Your task to perform on an android device: check google app version Image 0: 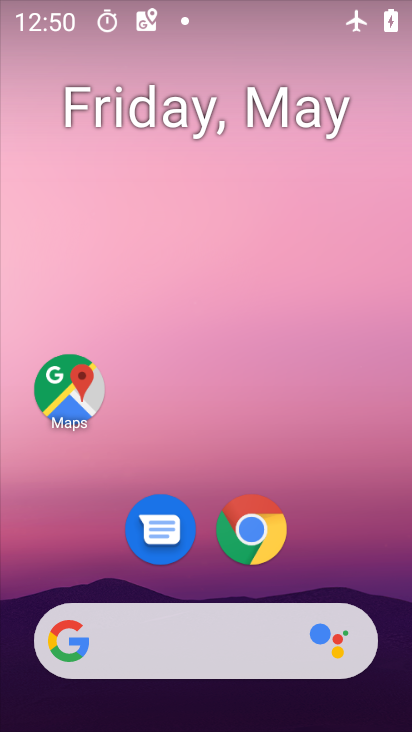
Step 0: drag from (120, 593) to (148, 67)
Your task to perform on an android device: check google app version Image 1: 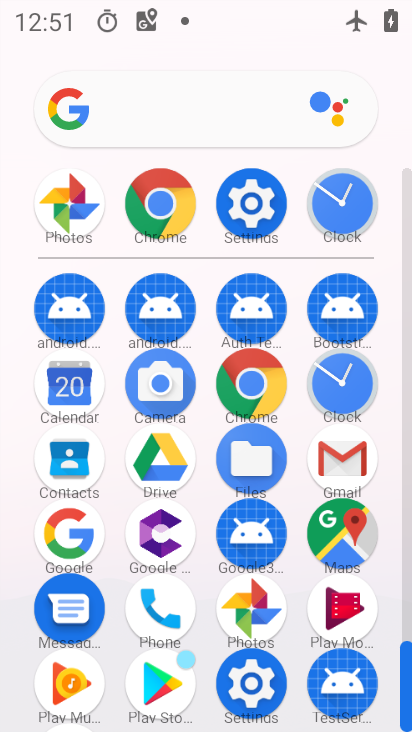
Step 1: click (73, 547)
Your task to perform on an android device: check google app version Image 2: 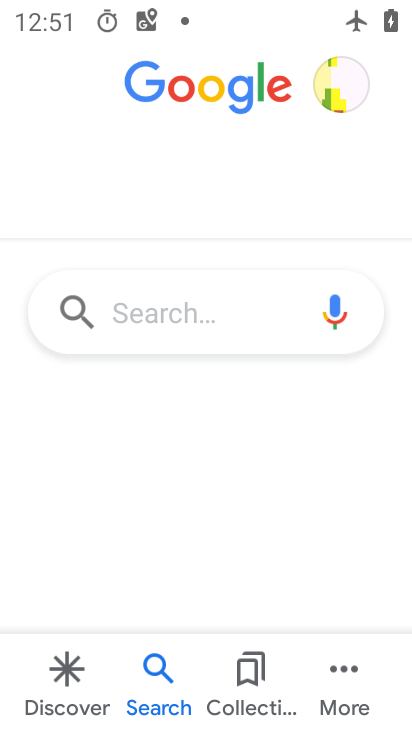
Step 2: click (334, 662)
Your task to perform on an android device: check google app version Image 3: 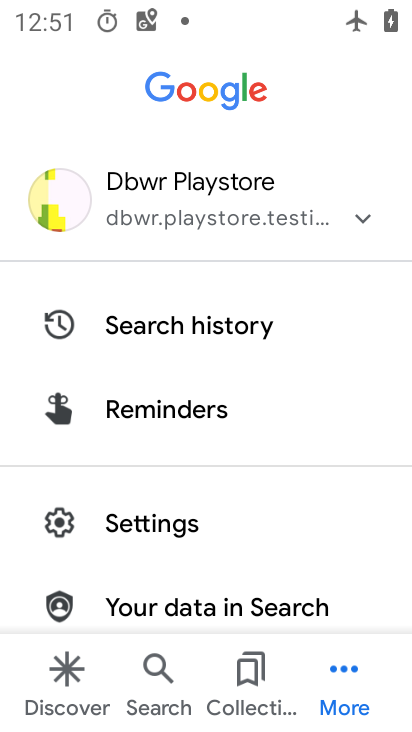
Step 3: click (297, 508)
Your task to perform on an android device: check google app version Image 4: 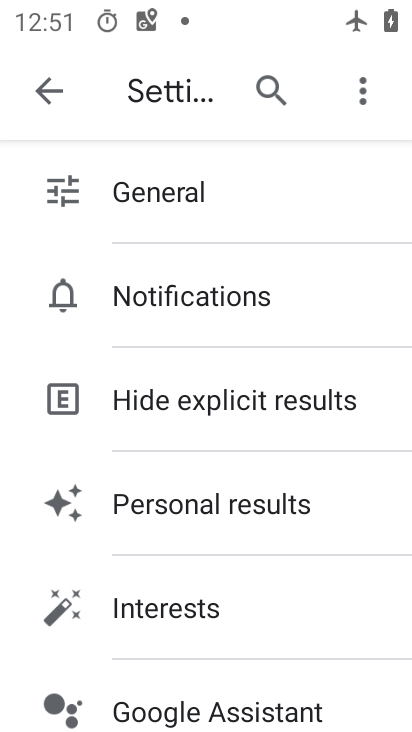
Step 4: drag from (189, 404) to (211, 154)
Your task to perform on an android device: check google app version Image 5: 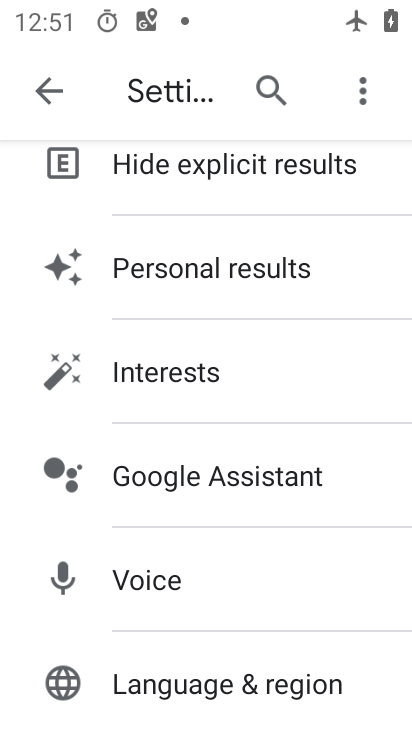
Step 5: drag from (226, 626) to (212, 173)
Your task to perform on an android device: check google app version Image 6: 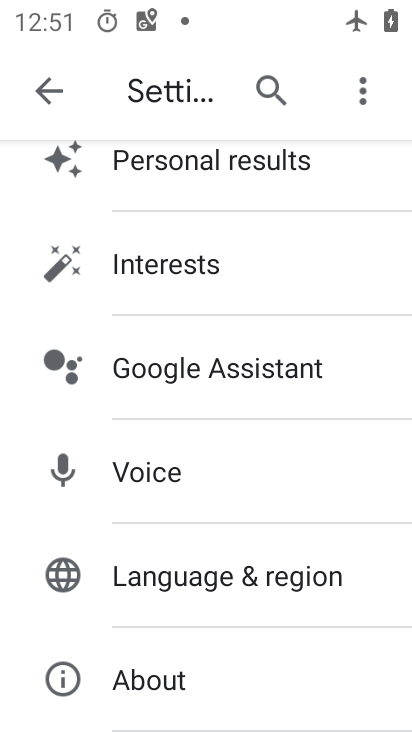
Step 6: click (194, 668)
Your task to perform on an android device: check google app version Image 7: 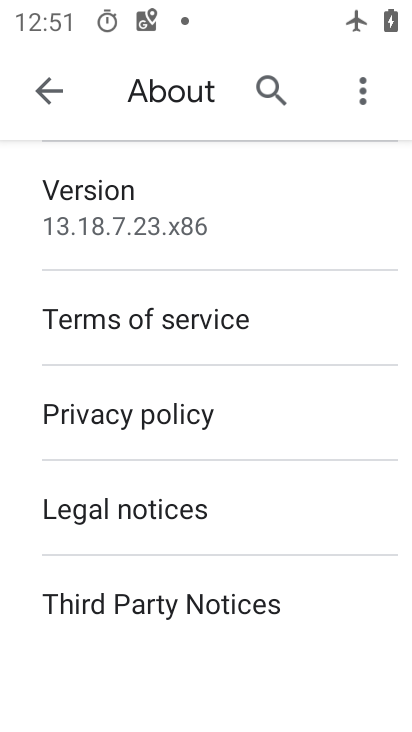
Step 7: click (205, 216)
Your task to perform on an android device: check google app version Image 8: 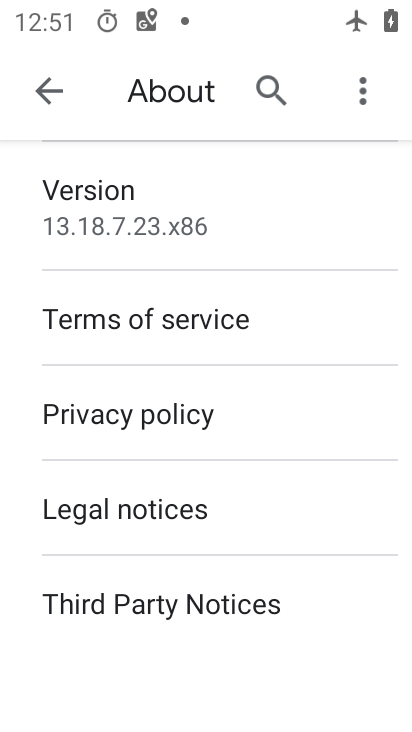
Step 8: task complete